Your task to perform on an android device: Search for "apple airpods pro" on costco, select the first entry, and add it to the cart. Image 0: 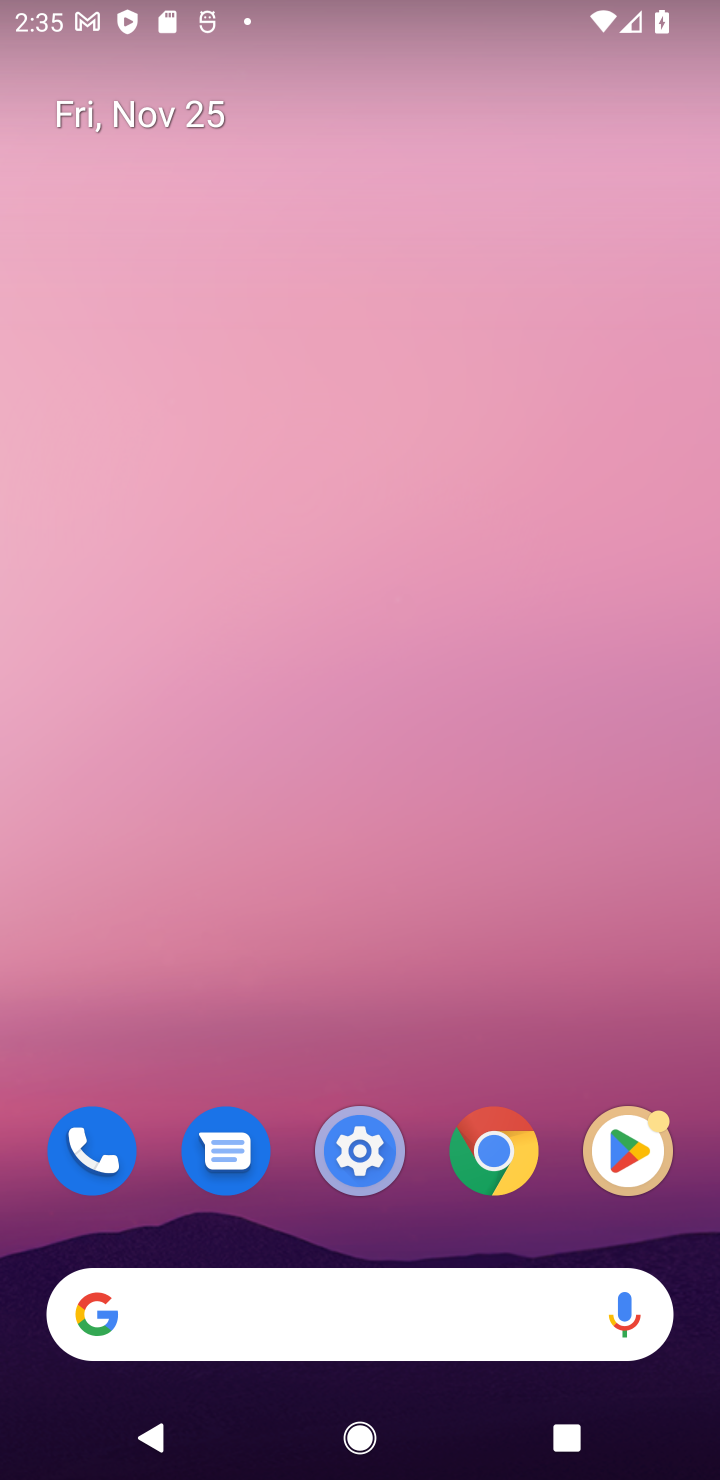
Step 0: click (464, 1295)
Your task to perform on an android device: Search for "apple airpods pro" on costco, select the first entry, and add it to the cart. Image 1: 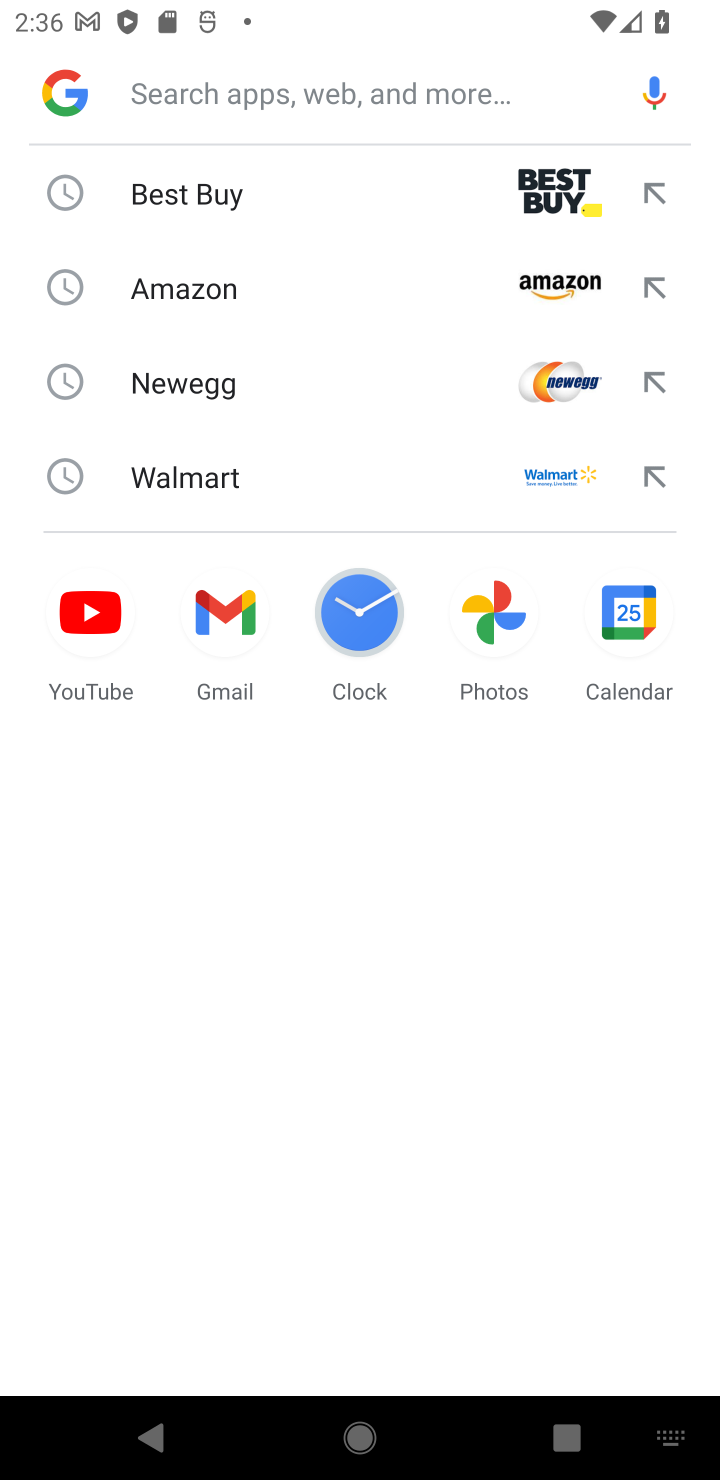
Step 1: type "costco"
Your task to perform on an android device: Search for "apple airpods pro" on costco, select the first entry, and add it to the cart. Image 2: 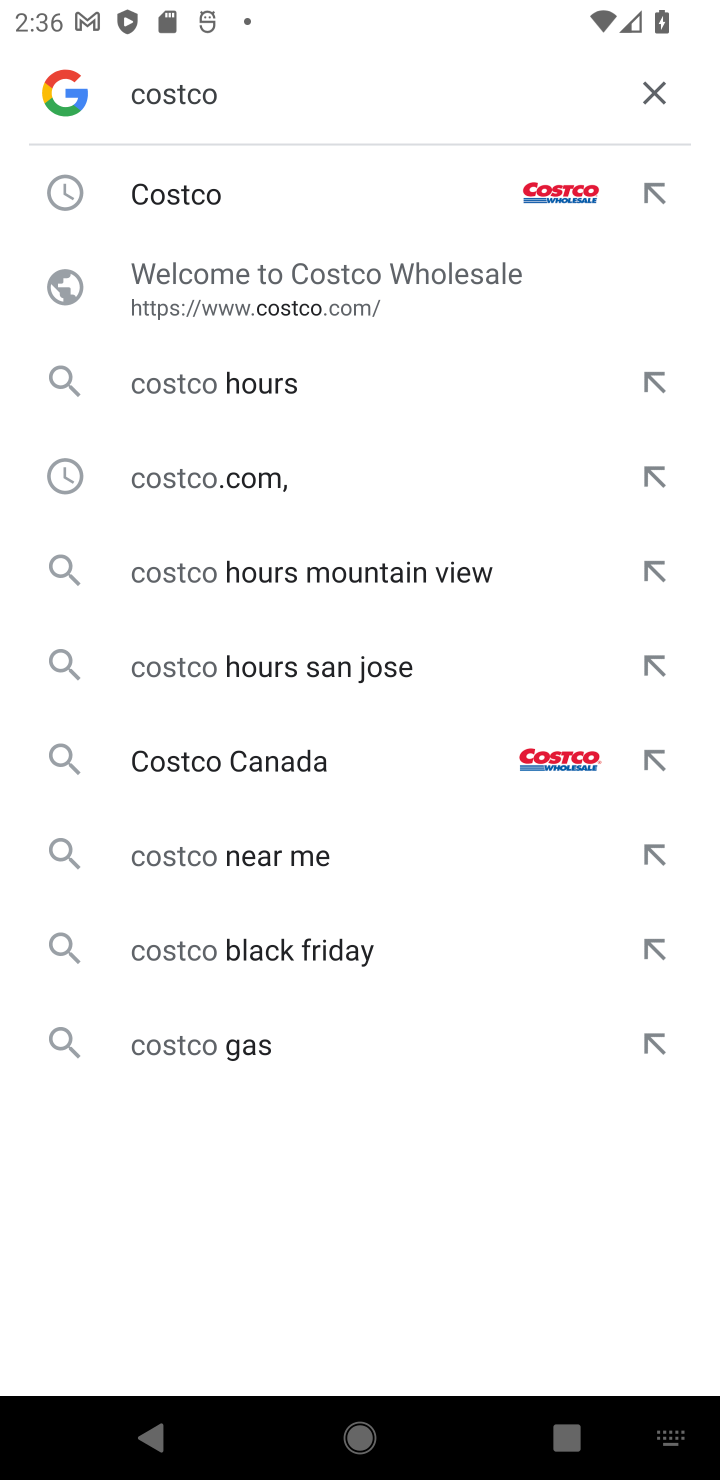
Step 2: click (306, 184)
Your task to perform on an android device: Search for "apple airpods pro" on costco, select the first entry, and add it to the cart. Image 3: 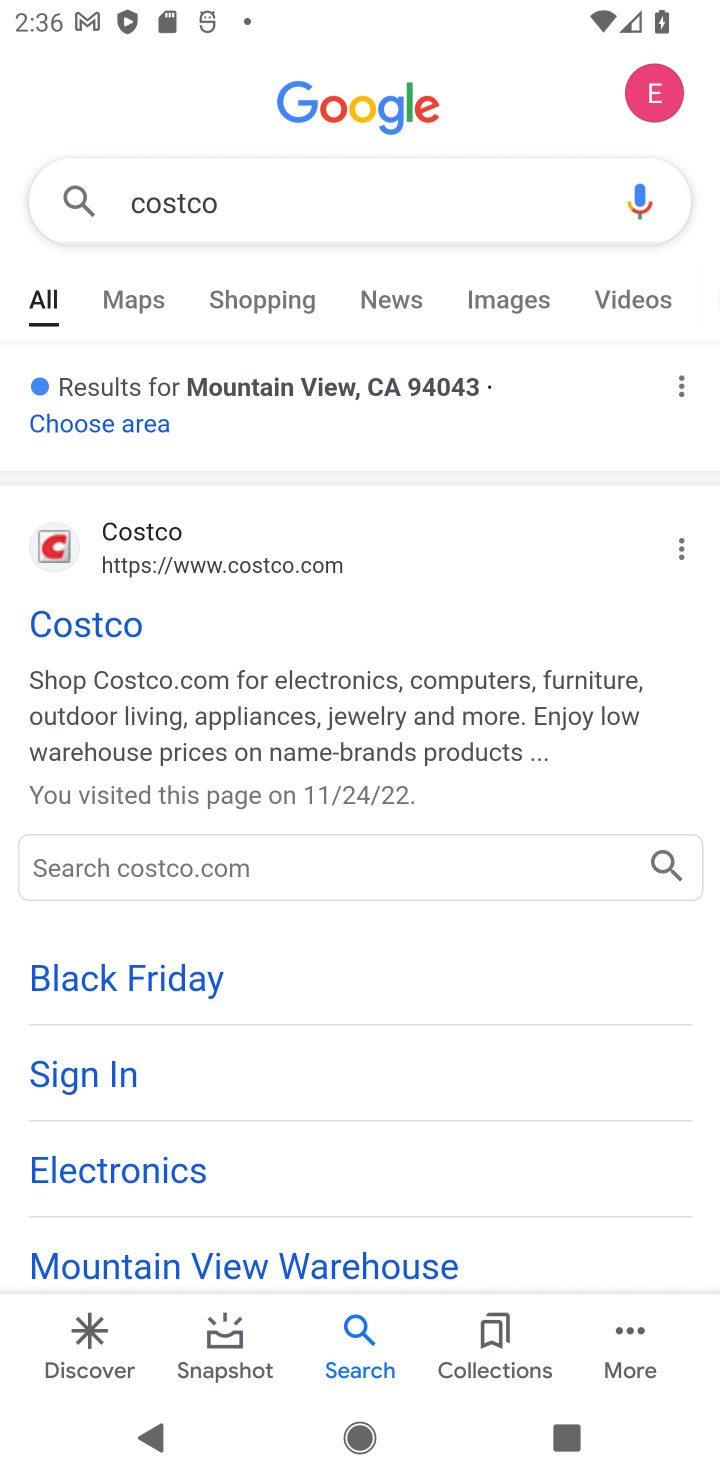
Step 3: click (154, 583)
Your task to perform on an android device: Search for "apple airpods pro" on costco, select the first entry, and add it to the cart. Image 4: 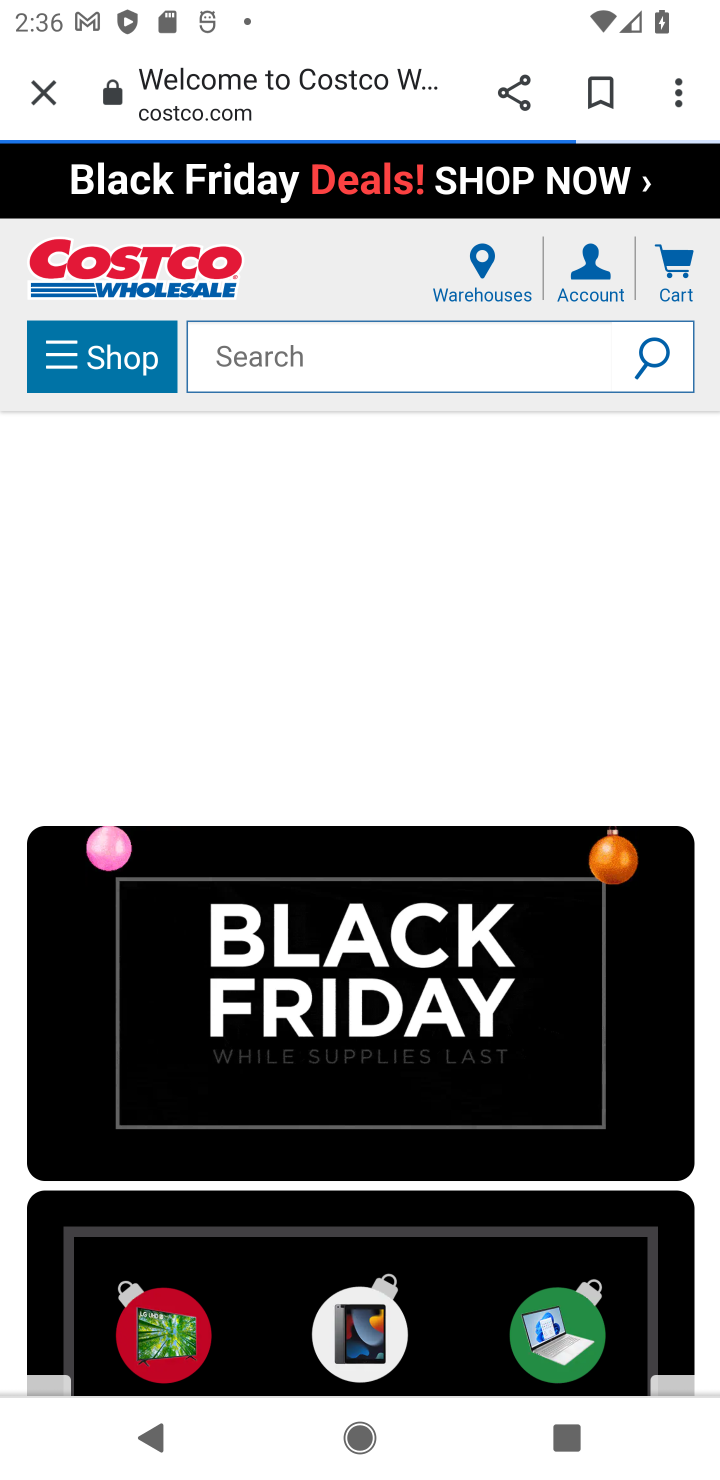
Step 4: click (270, 376)
Your task to perform on an android device: Search for "apple airpods pro" on costco, select the first entry, and add it to the cart. Image 5: 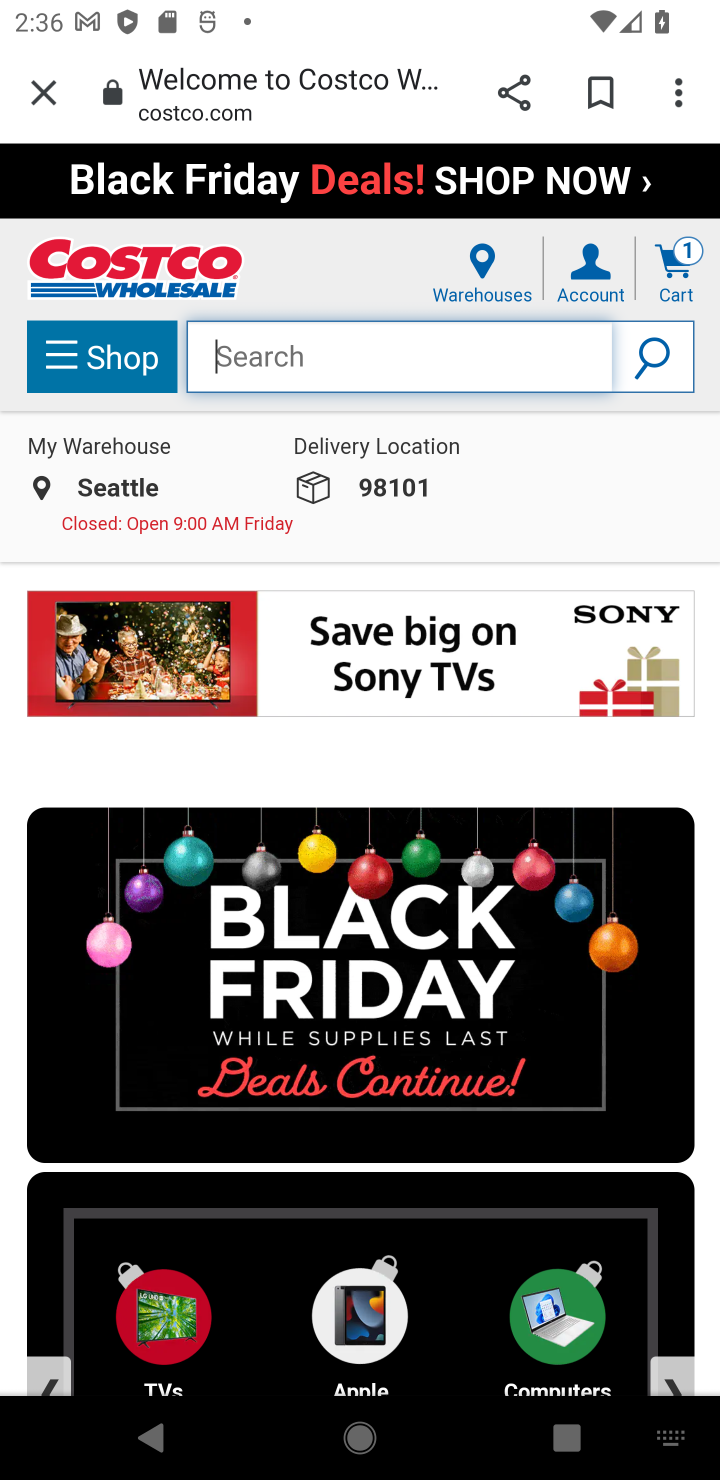
Step 5: type "apple airpod"
Your task to perform on an android device: Search for "apple airpods pro" on costco, select the first entry, and add it to the cart. Image 6: 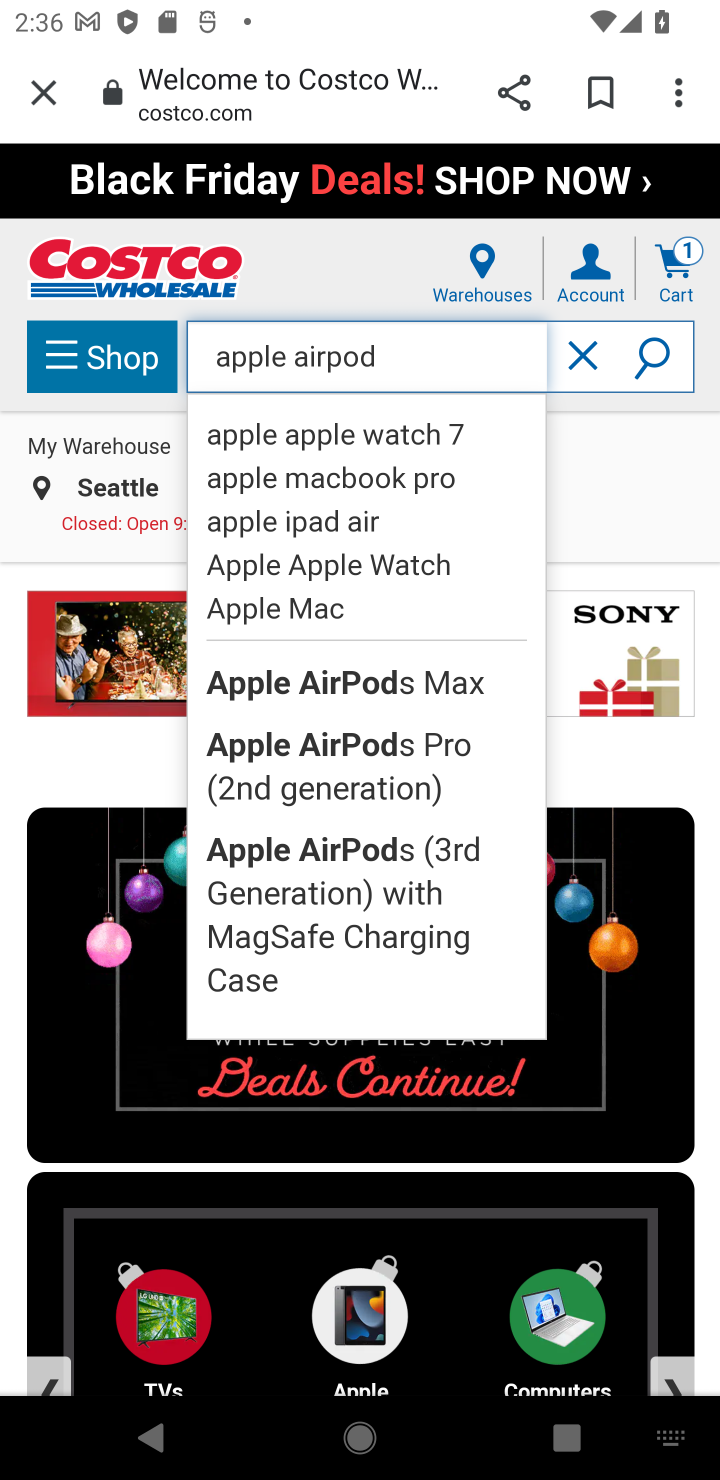
Step 6: click (638, 365)
Your task to perform on an android device: Search for "apple airpods pro" on costco, select the first entry, and add it to the cart. Image 7: 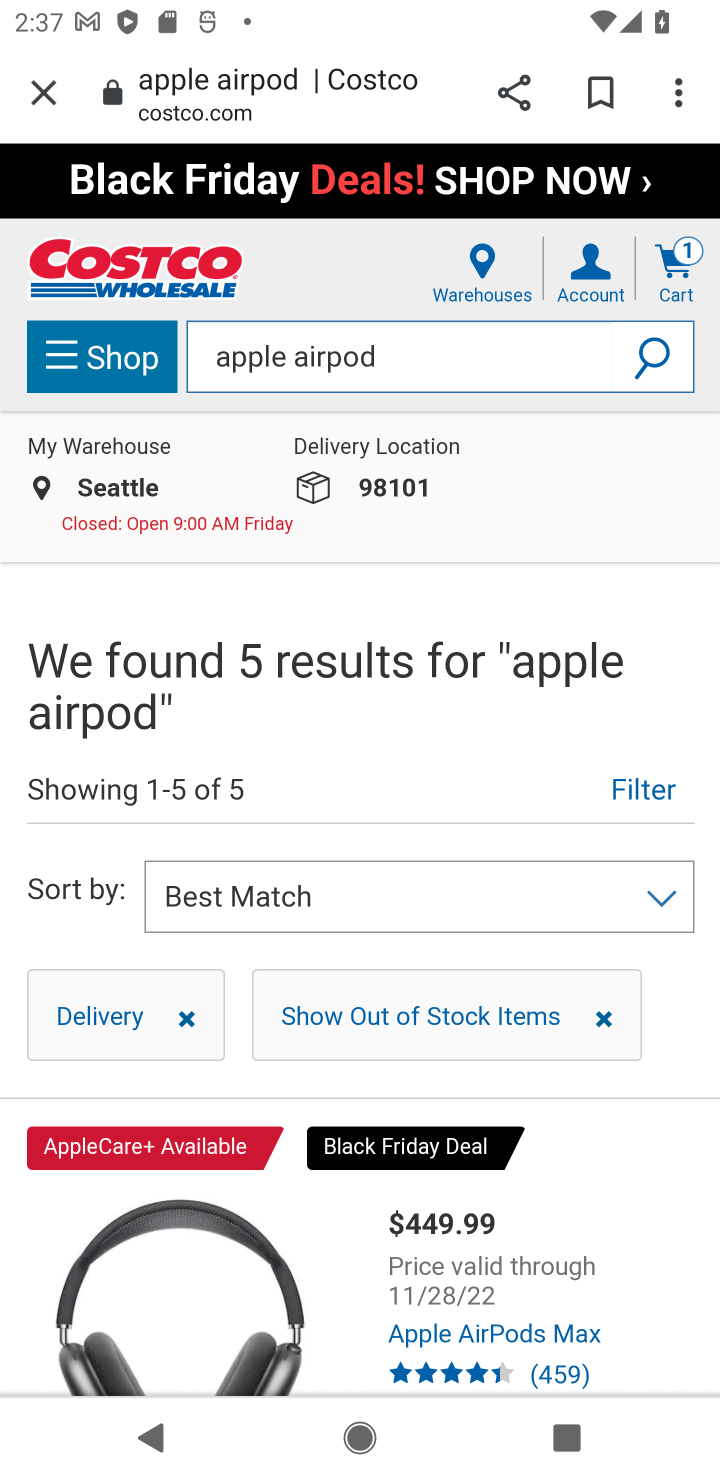
Step 7: click (507, 1325)
Your task to perform on an android device: Search for "apple airpods pro" on costco, select the first entry, and add it to the cart. Image 8: 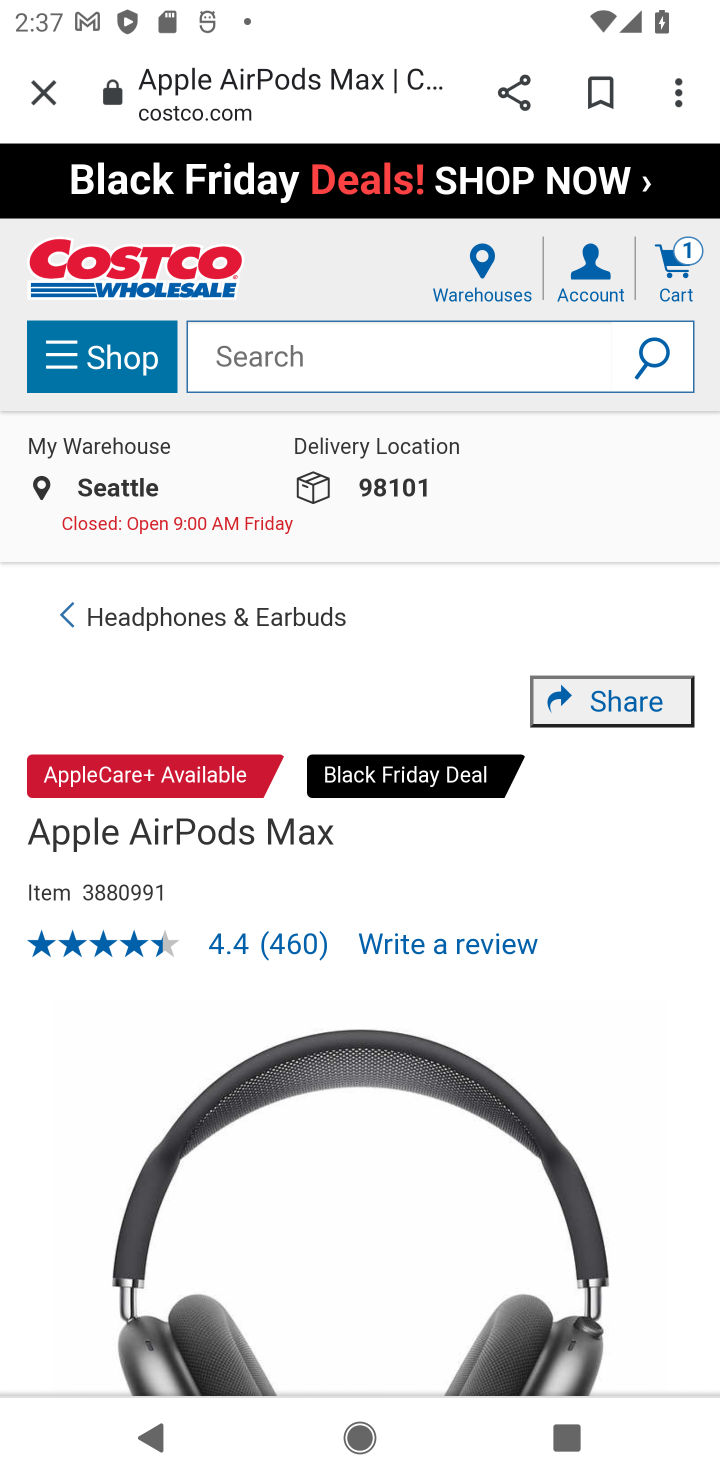
Step 8: task complete